Your task to perform on an android device: What is the news today? Image 0: 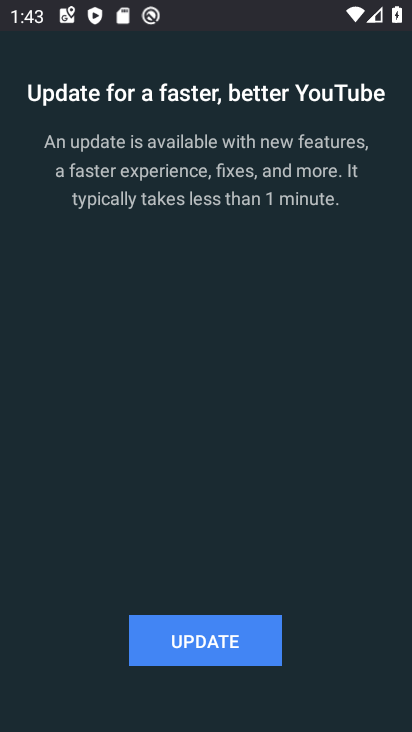
Step 0: press home button
Your task to perform on an android device: What is the news today? Image 1: 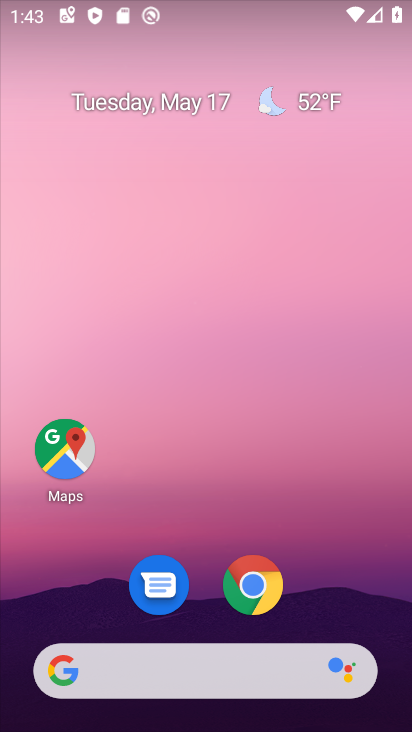
Step 1: click (235, 671)
Your task to perform on an android device: What is the news today? Image 2: 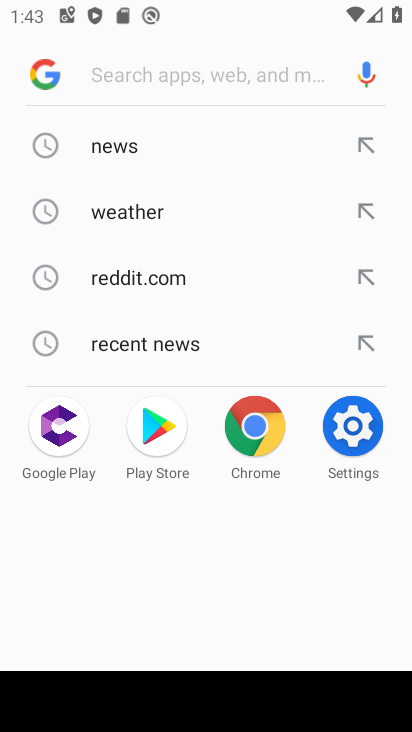
Step 2: click (117, 147)
Your task to perform on an android device: What is the news today? Image 3: 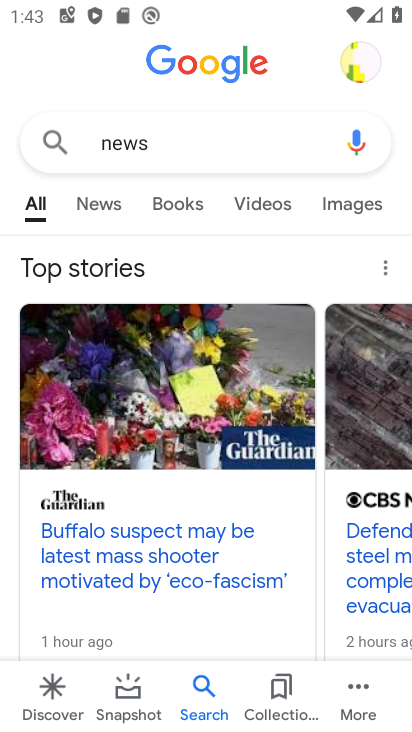
Step 3: task complete